Your task to perform on an android device: Open Google Chrome and click the shortcut for Amazon.com Image 0: 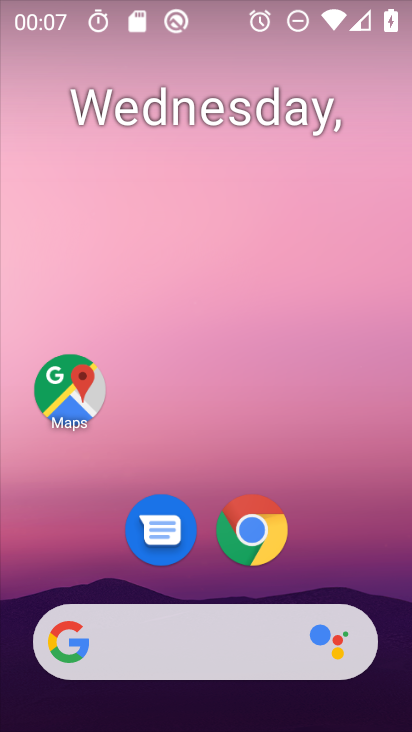
Step 0: drag from (301, 671) to (287, 16)
Your task to perform on an android device: Open Google Chrome and click the shortcut for Amazon.com Image 1: 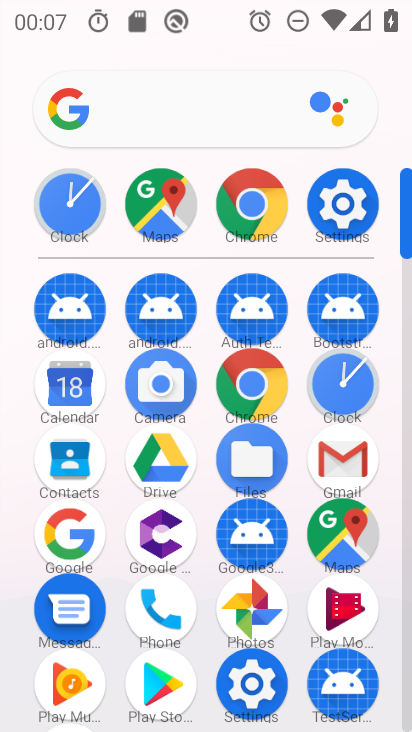
Step 1: click (269, 399)
Your task to perform on an android device: Open Google Chrome and click the shortcut for Amazon.com Image 2: 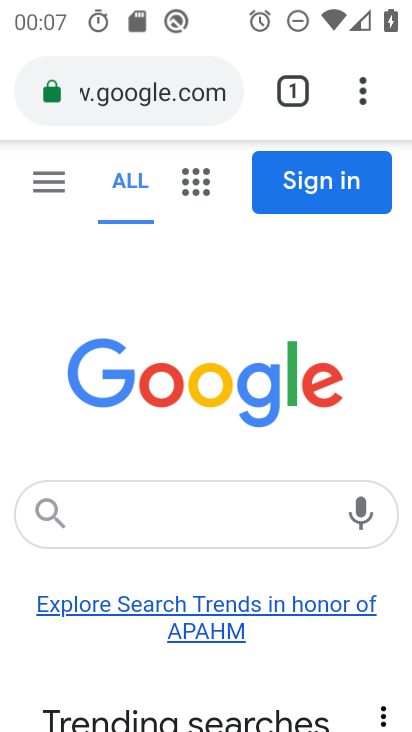
Step 2: drag from (369, 95) to (183, 173)
Your task to perform on an android device: Open Google Chrome and click the shortcut for Amazon.com Image 3: 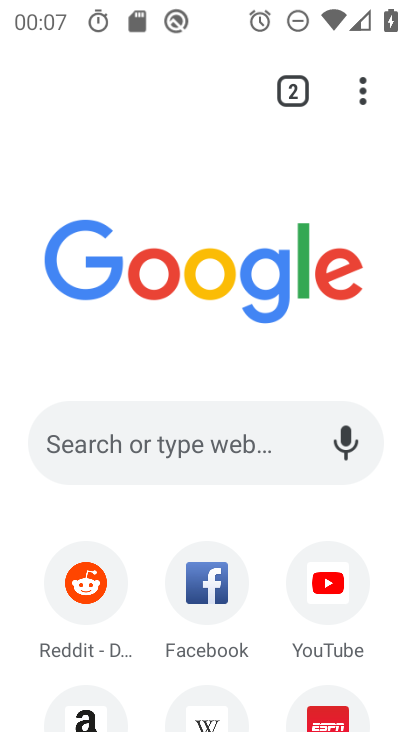
Step 3: drag from (261, 638) to (295, 249)
Your task to perform on an android device: Open Google Chrome and click the shortcut for Amazon.com Image 4: 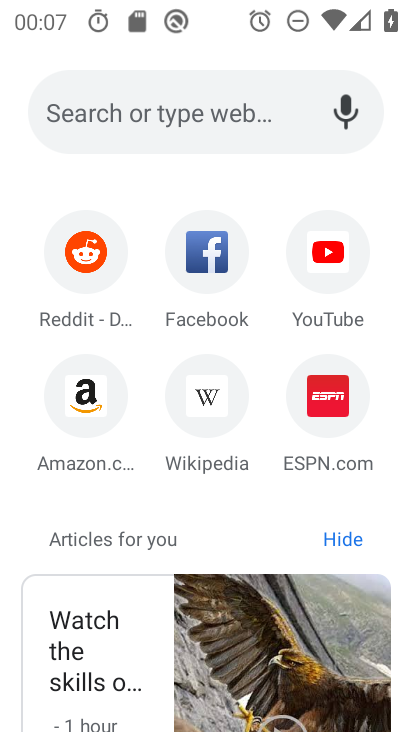
Step 4: click (90, 384)
Your task to perform on an android device: Open Google Chrome and click the shortcut for Amazon.com Image 5: 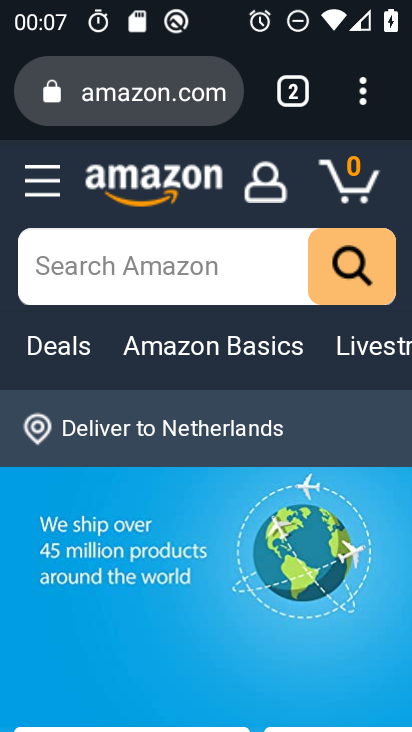
Step 5: click (372, 87)
Your task to perform on an android device: Open Google Chrome and click the shortcut for Amazon.com Image 6: 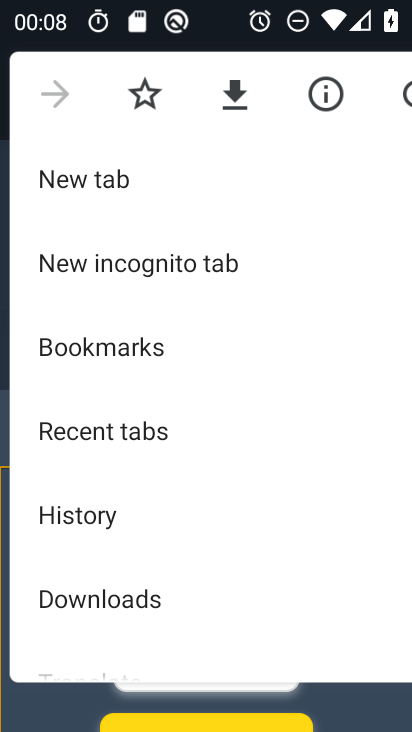
Step 6: drag from (140, 652) to (230, 170)
Your task to perform on an android device: Open Google Chrome and click the shortcut for Amazon.com Image 7: 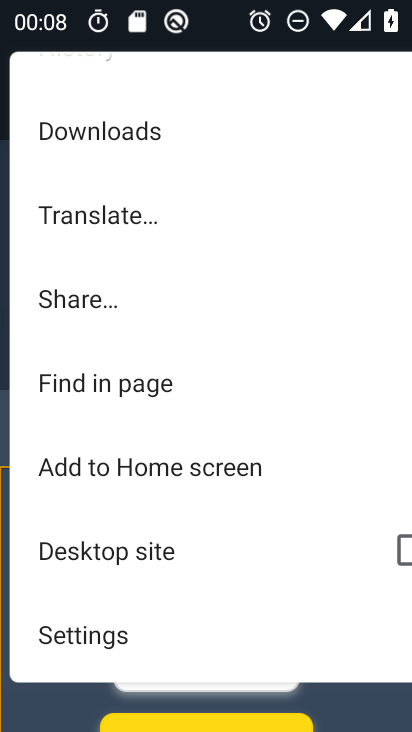
Step 7: click (224, 475)
Your task to perform on an android device: Open Google Chrome and click the shortcut for Amazon.com Image 8: 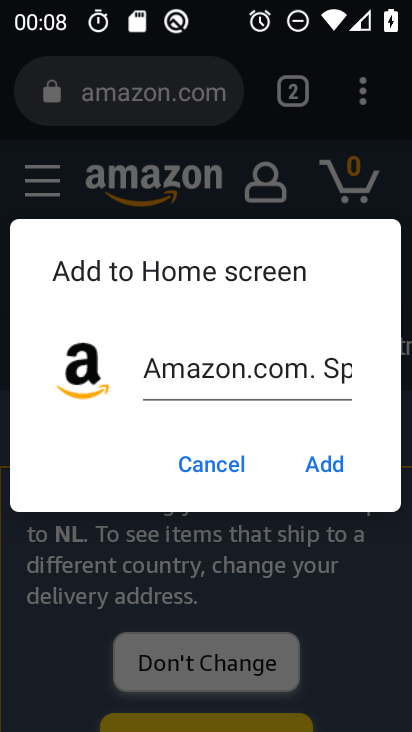
Step 8: click (307, 454)
Your task to perform on an android device: Open Google Chrome and click the shortcut for Amazon.com Image 9: 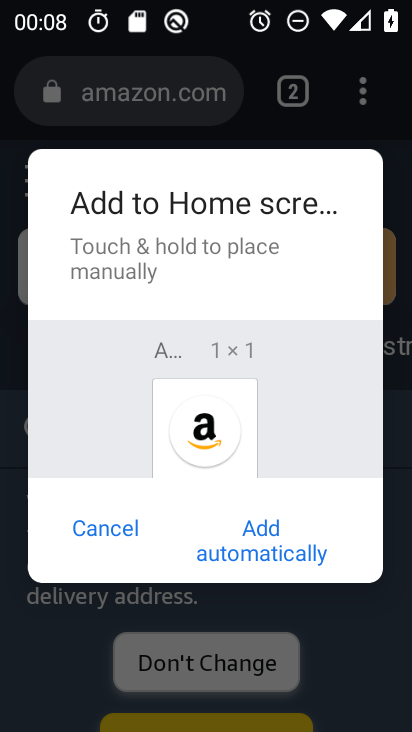
Step 9: click (292, 524)
Your task to perform on an android device: Open Google Chrome and click the shortcut for Amazon.com Image 10: 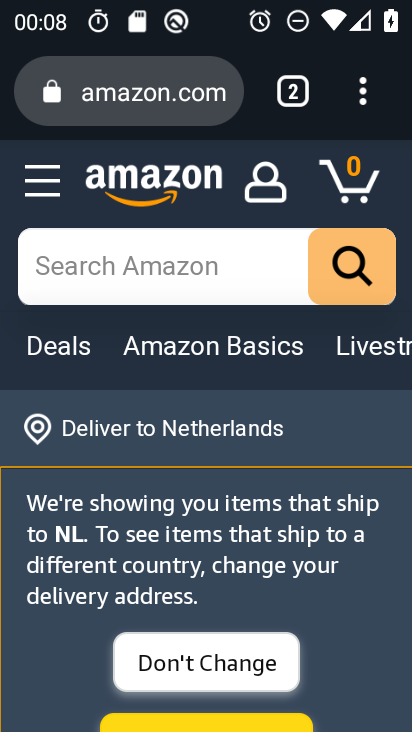
Step 10: task complete